Your task to perform on an android device: toggle notification dots Image 0: 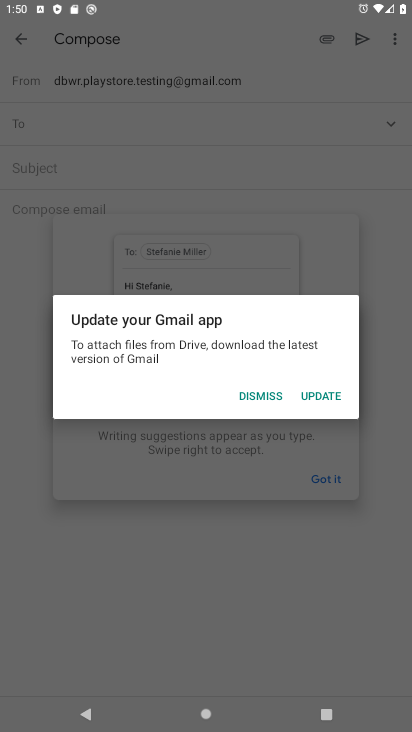
Step 0: press home button
Your task to perform on an android device: toggle notification dots Image 1: 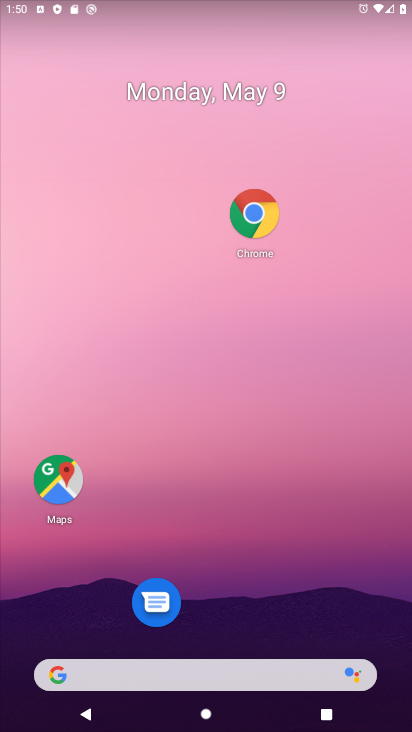
Step 1: drag from (239, 618) to (201, 169)
Your task to perform on an android device: toggle notification dots Image 2: 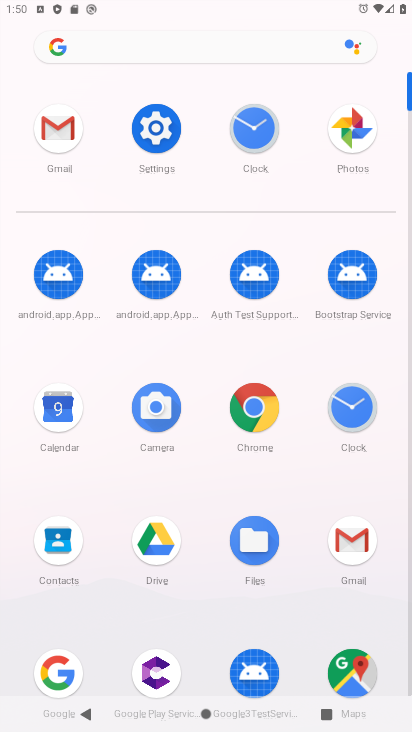
Step 2: click (150, 146)
Your task to perform on an android device: toggle notification dots Image 3: 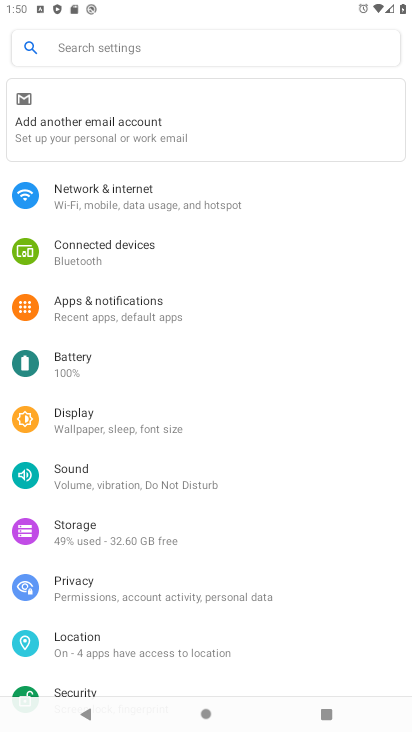
Step 3: click (152, 288)
Your task to perform on an android device: toggle notification dots Image 4: 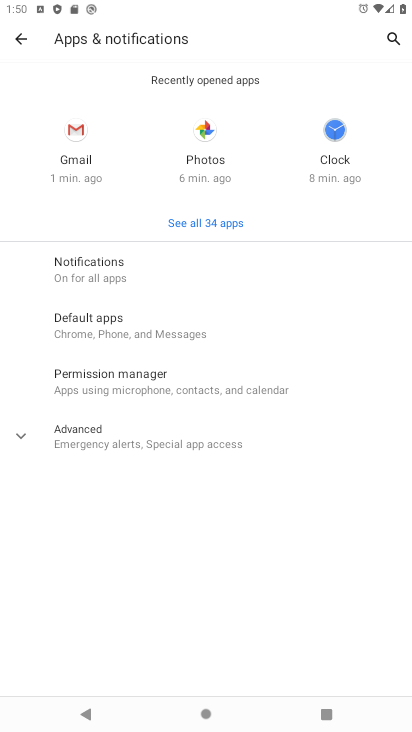
Step 4: task complete